Your task to perform on an android device: Open Wikipedia Image 0: 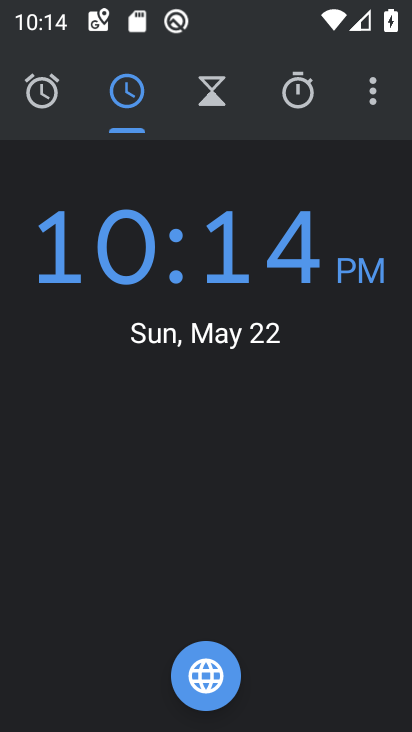
Step 0: press home button
Your task to perform on an android device: Open Wikipedia Image 1: 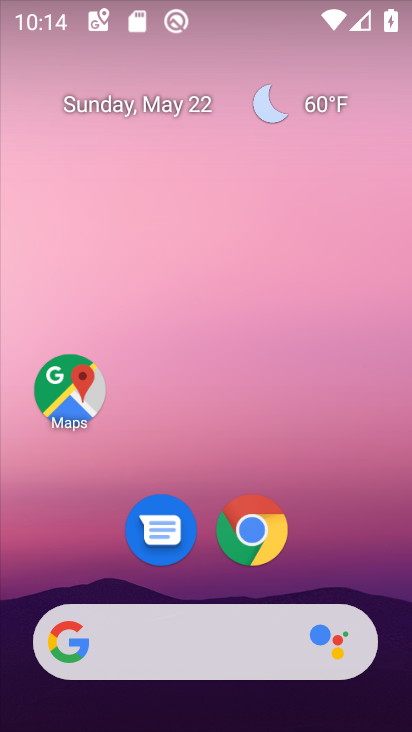
Step 1: click (248, 514)
Your task to perform on an android device: Open Wikipedia Image 2: 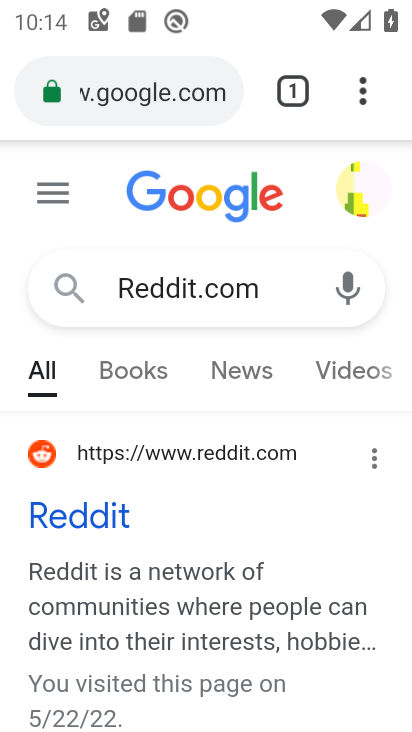
Step 2: click (233, 92)
Your task to perform on an android device: Open Wikipedia Image 3: 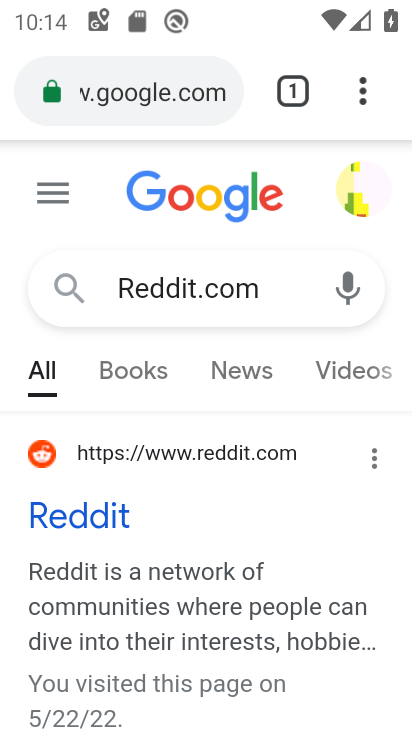
Step 3: click (228, 87)
Your task to perform on an android device: Open Wikipedia Image 4: 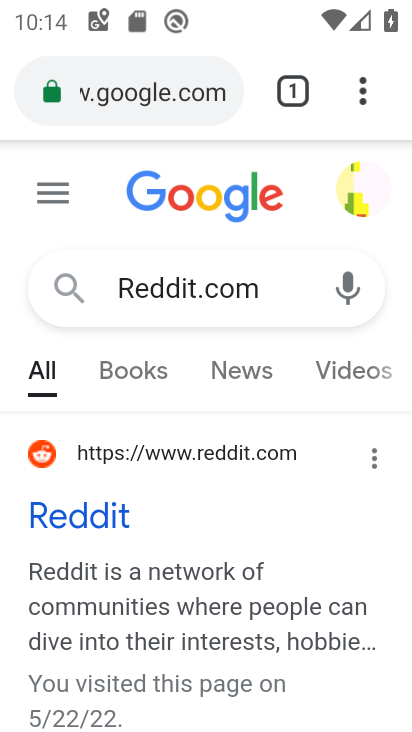
Step 4: click (222, 90)
Your task to perform on an android device: Open Wikipedia Image 5: 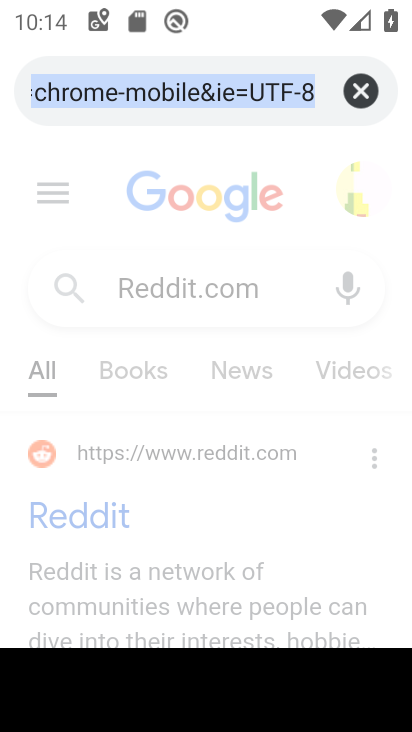
Step 5: click (372, 80)
Your task to perform on an android device: Open Wikipedia Image 6: 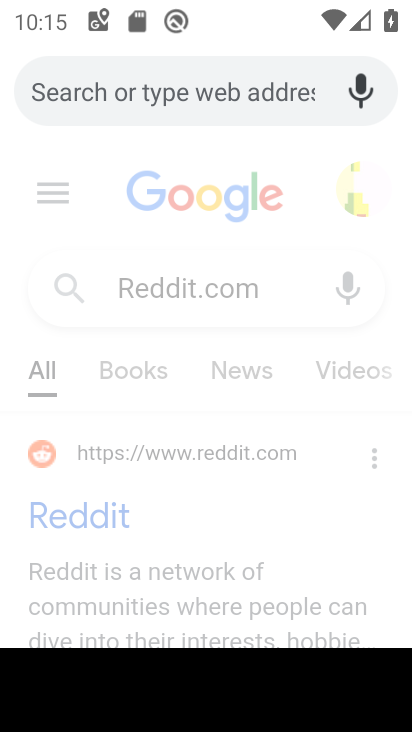
Step 6: type "Wikipedia"
Your task to perform on an android device: Open Wikipedia Image 7: 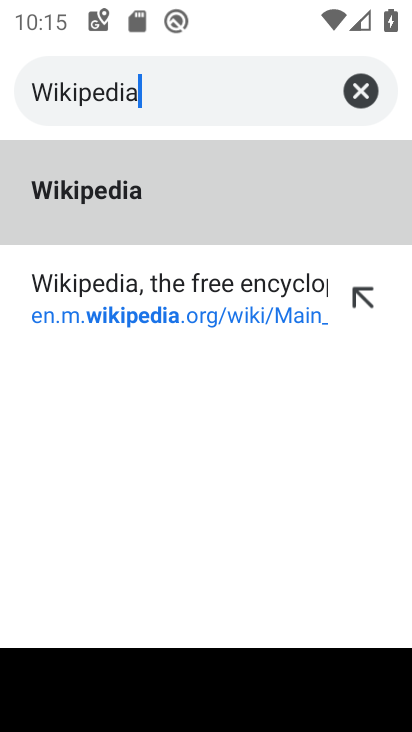
Step 7: click (56, 186)
Your task to perform on an android device: Open Wikipedia Image 8: 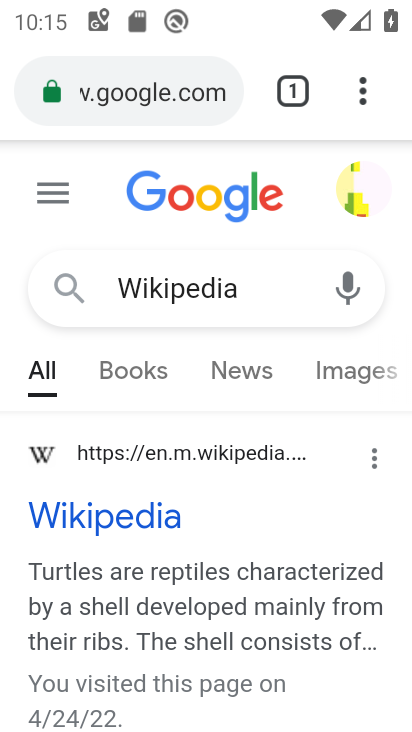
Step 8: task complete